Your task to perform on an android device: Open calendar and show me the second week of next month Image 0: 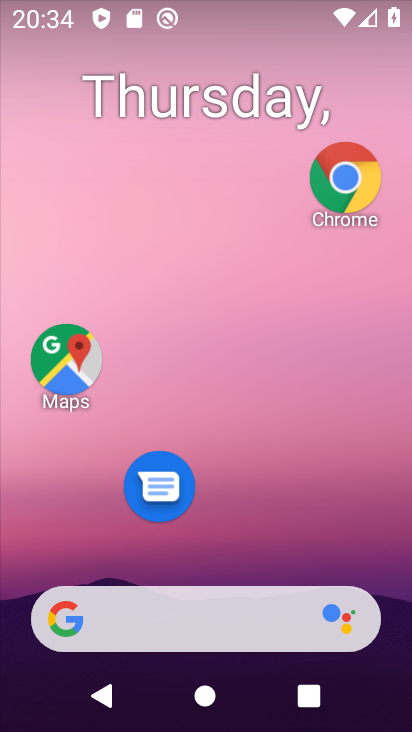
Step 0: drag from (214, 575) to (327, 0)
Your task to perform on an android device: Open calendar and show me the second week of next month Image 1: 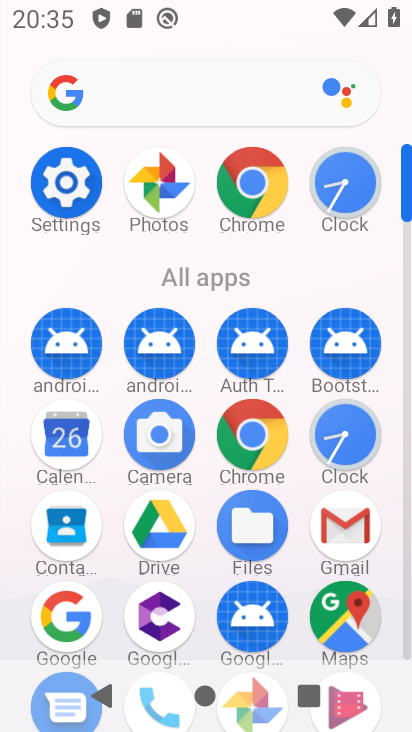
Step 1: click (70, 447)
Your task to perform on an android device: Open calendar and show me the second week of next month Image 2: 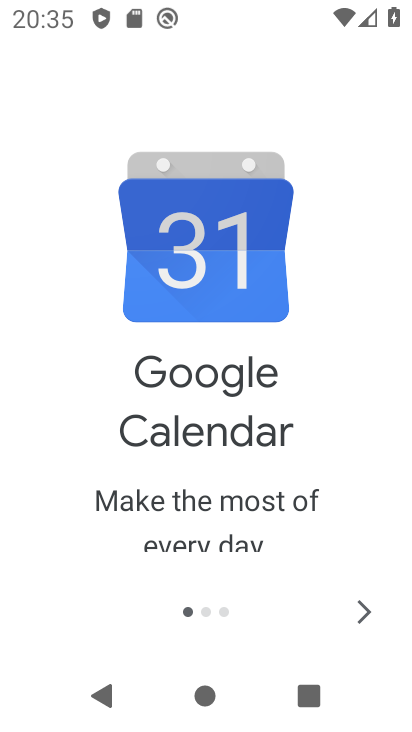
Step 2: click (361, 609)
Your task to perform on an android device: Open calendar and show me the second week of next month Image 3: 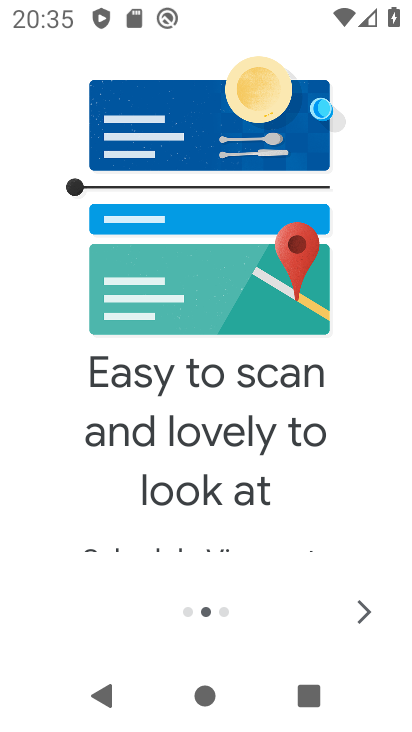
Step 3: click (356, 608)
Your task to perform on an android device: Open calendar and show me the second week of next month Image 4: 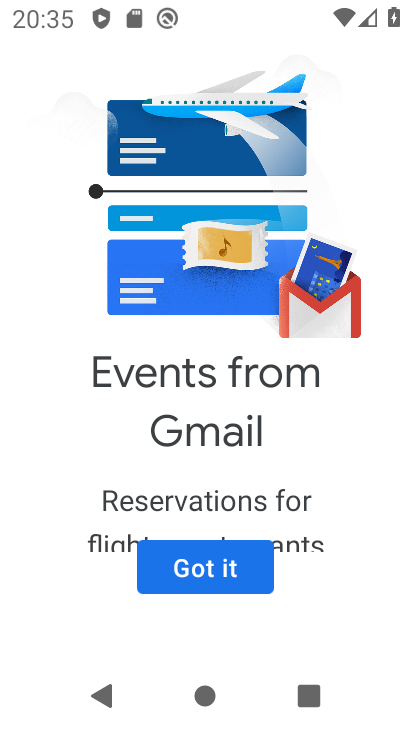
Step 4: click (367, 616)
Your task to perform on an android device: Open calendar and show me the second week of next month Image 5: 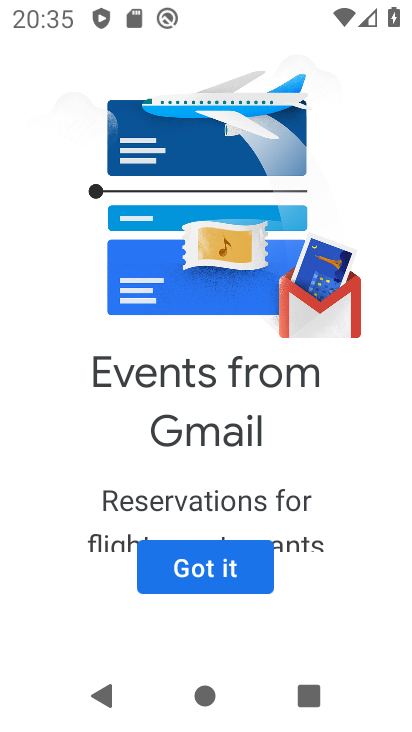
Step 5: click (220, 574)
Your task to perform on an android device: Open calendar and show me the second week of next month Image 6: 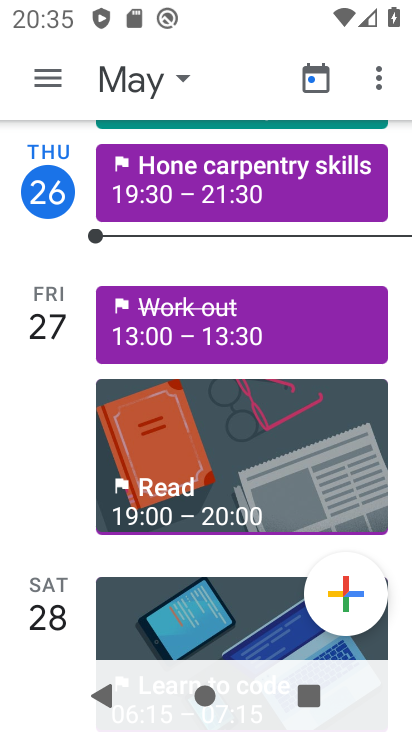
Step 6: click (55, 69)
Your task to perform on an android device: Open calendar and show me the second week of next month Image 7: 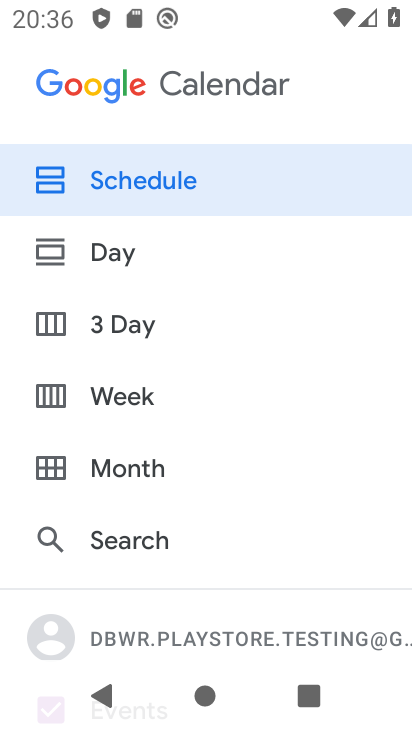
Step 7: click (155, 379)
Your task to perform on an android device: Open calendar and show me the second week of next month Image 8: 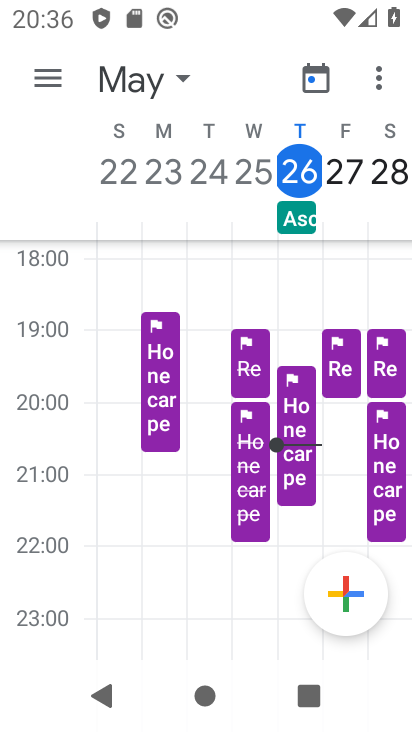
Step 8: task complete